Your task to perform on an android device: turn smart compose on in the gmail app Image 0: 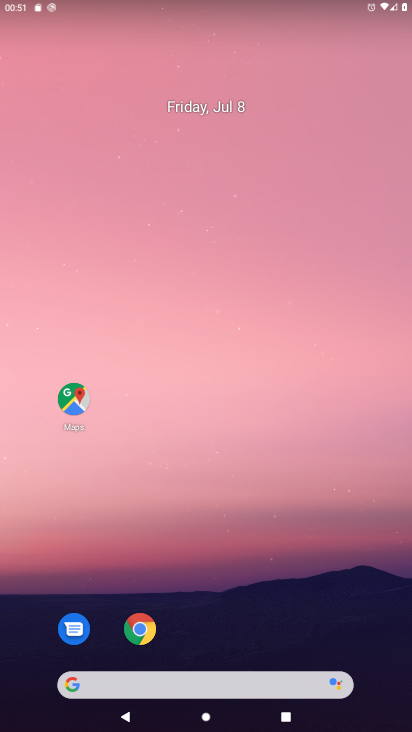
Step 0: drag from (242, 628) to (201, 193)
Your task to perform on an android device: turn smart compose on in the gmail app Image 1: 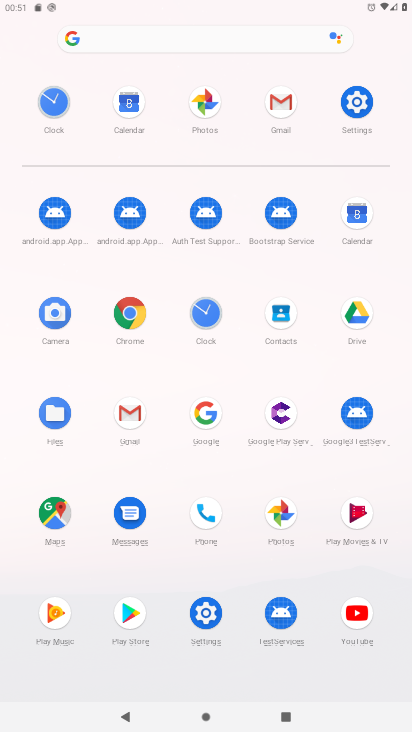
Step 1: click (286, 104)
Your task to perform on an android device: turn smart compose on in the gmail app Image 2: 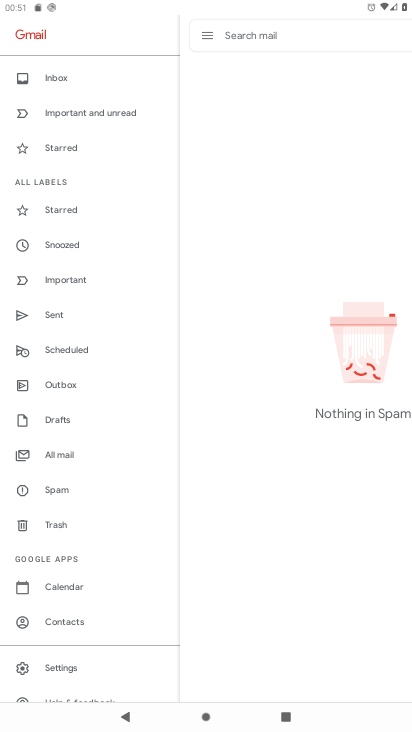
Step 2: click (81, 667)
Your task to perform on an android device: turn smart compose on in the gmail app Image 3: 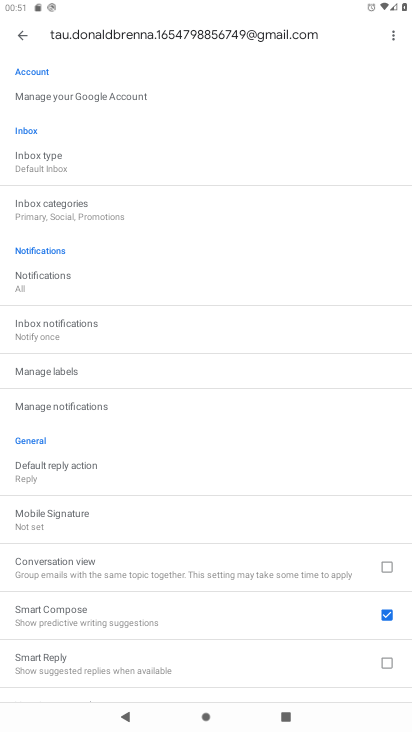
Step 3: task complete